Your task to perform on an android device: Go to Google Image 0: 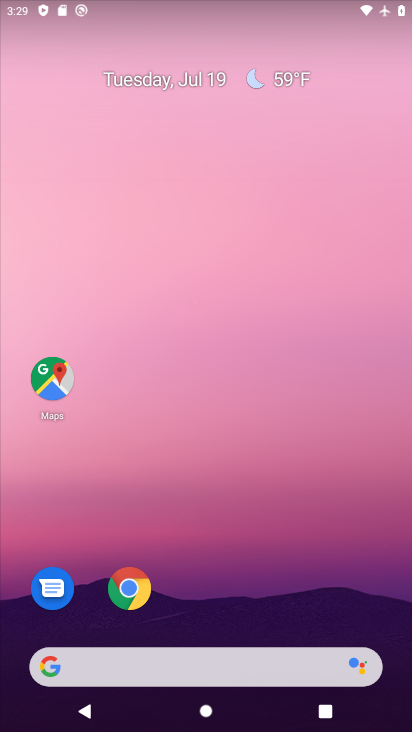
Step 0: press home button
Your task to perform on an android device: Go to Google Image 1: 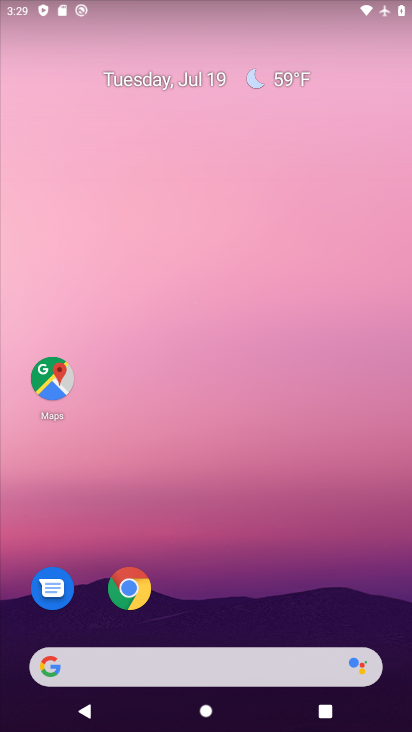
Step 1: click (56, 664)
Your task to perform on an android device: Go to Google Image 2: 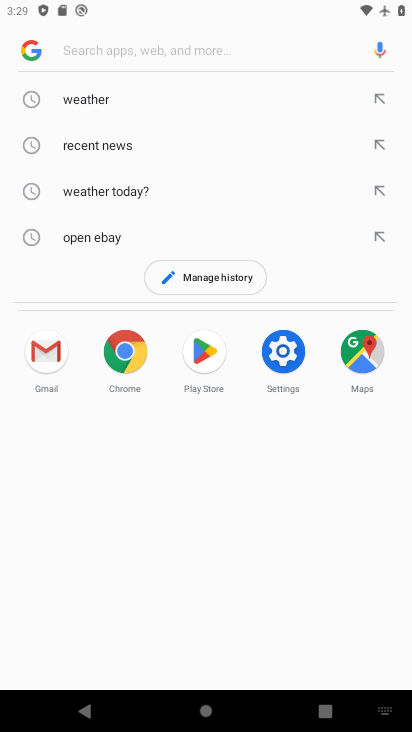
Step 2: task complete